Your task to perform on an android device: refresh tabs in the chrome app Image 0: 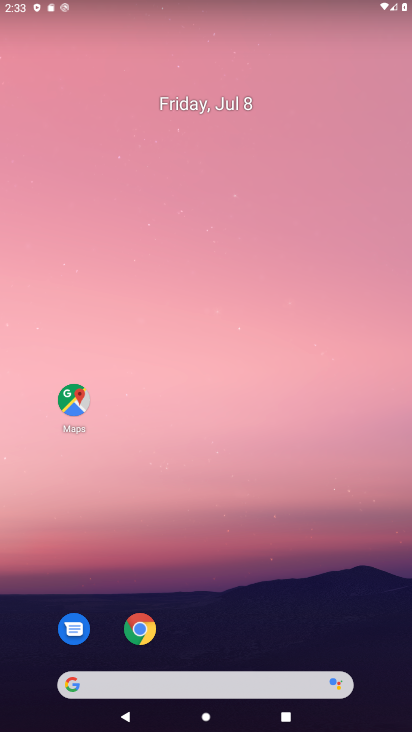
Step 0: click (150, 635)
Your task to perform on an android device: refresh tabs in the chrome app Image 1: 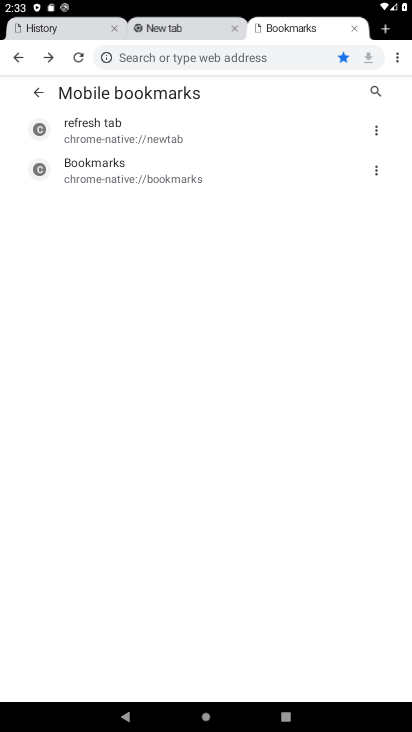
Step 1: click (392, 53)
Your task to perform on an android device: refresh tabs in the chrome app Image 2: 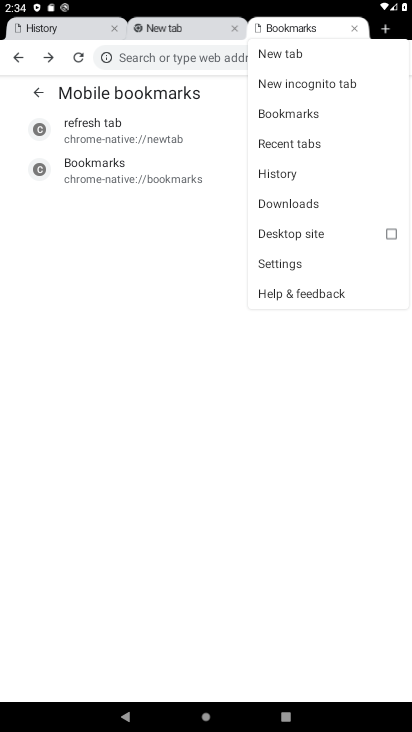
Step 2: click (72, 56)
Your task to perform on an android device: refresh tabs in the chrome app Image 3: 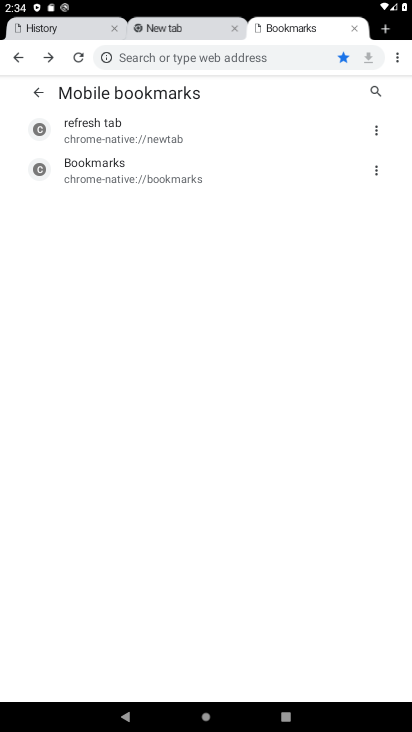
Step 3: click (72, 58)
Your task to perform on an android device: refresh tabs in the chrome app Image 4: 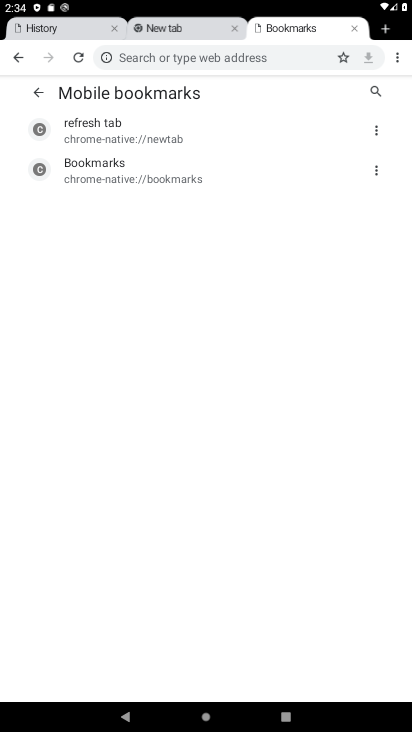
Step 4: task complete